Your task to perform on an android device: Set the phone to "Do not disturb". Image 0: 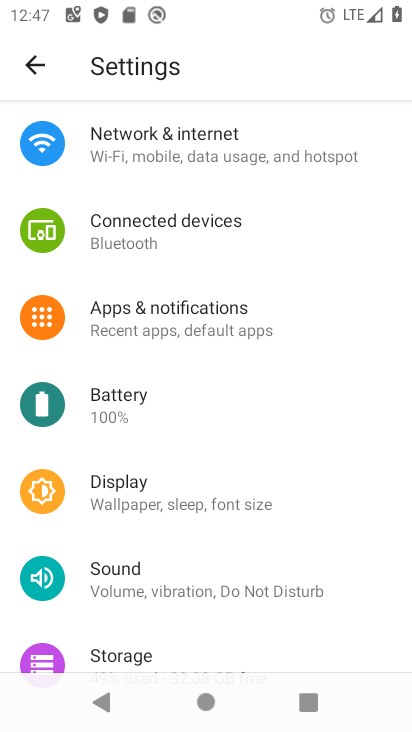
Step 0: click (108, 586)
Your task to perform on an android device: Set the phone to "Do not disturb". Image 1: 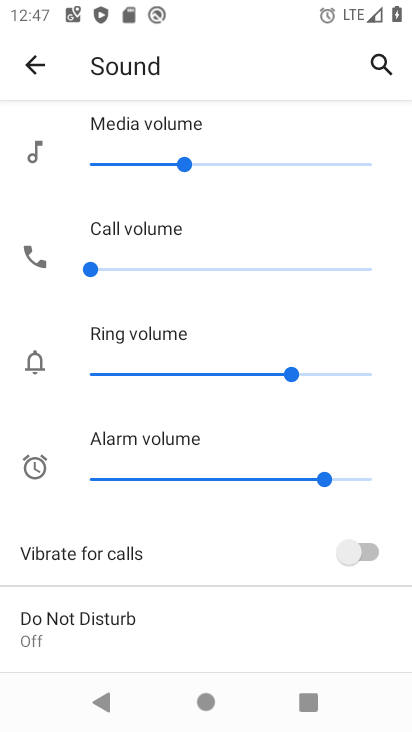
Step 1: click (111, 629)
Your task to perform on an android device: Set the phone to "Do not disturb". Image 2: 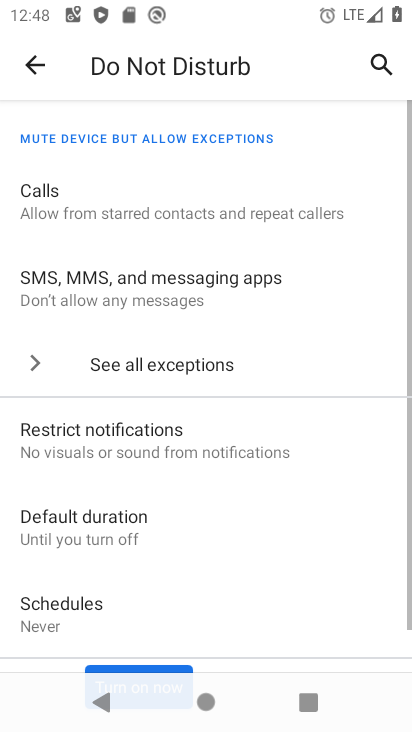
Step 2: drag from (119, 629) to (160, 442)
Your task to perform on an android device: Set the phone to "Do not disturb". Image 3: 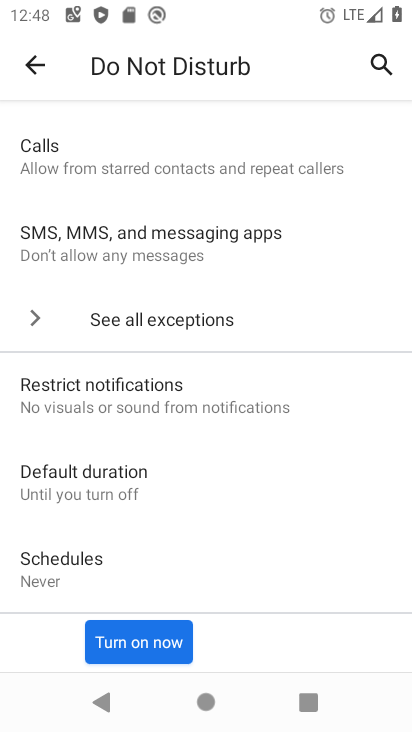
Step 3: click (131, 636)
Your task to perform on an android device: Set the phone to "Do not disturb". Image 4: 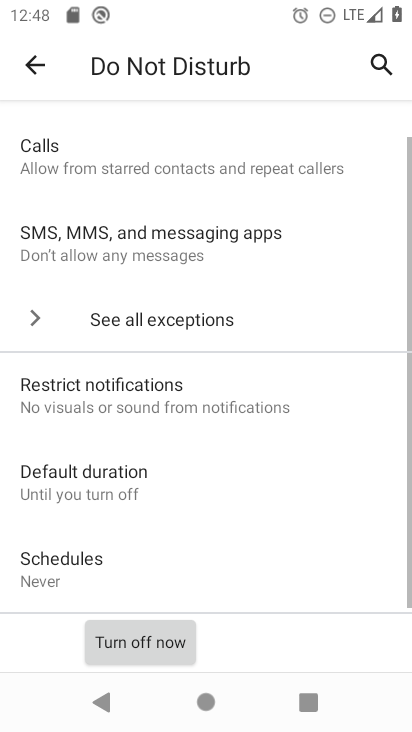
Step 4: task complete